Your task to perform on an android device: What's the news in Sri Lanka? Image 0: 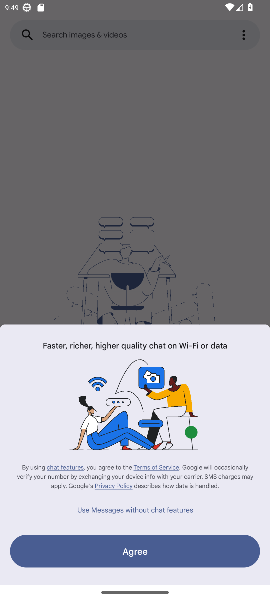
Step 0: click (195, 558)
Your task to perform on an android device: What's the news in Sri Lanka? Image 1: 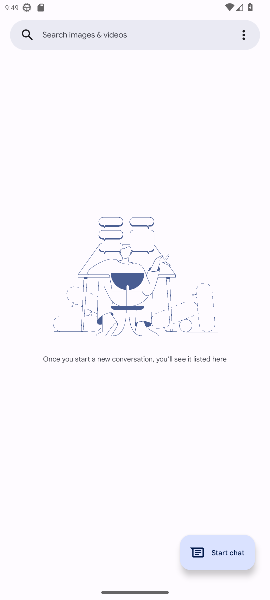
Step 1: press back button
Your task to perform on an android device: What's the news in Sri Lanka? Image 2: 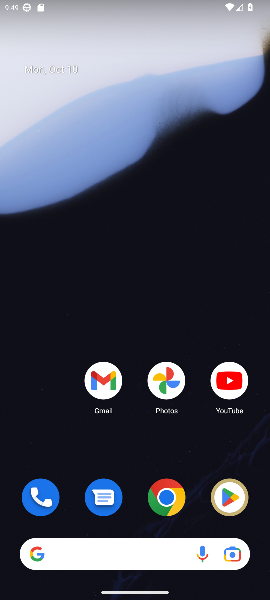
Step 2: drag from (102, 472) to (113, 56)
Your task to perform on an android device: What's the news in Sri Lanka? Image 3: 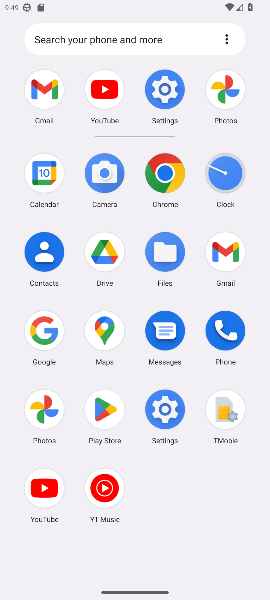
Step 3: click (45, 322)
Your task to perform on an android device: What's the news in Sri Lanka? Image 4: 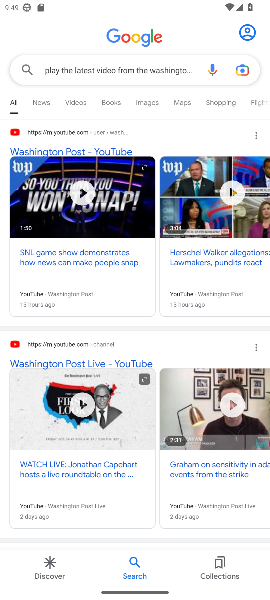
Step 4: click (127, 64)
Your task to perform on an android device: What's the news in Sri Lanka? Image 5: 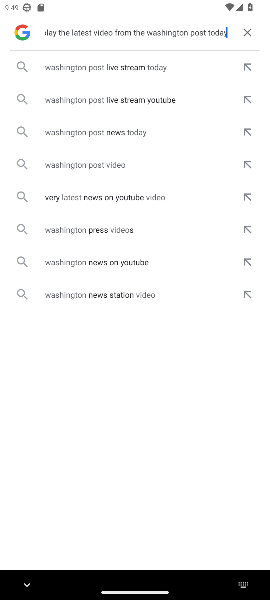
Step 5: click (243, 27)
Your task to perform on an android device: What's the news in Sri Lanka? Image 6: 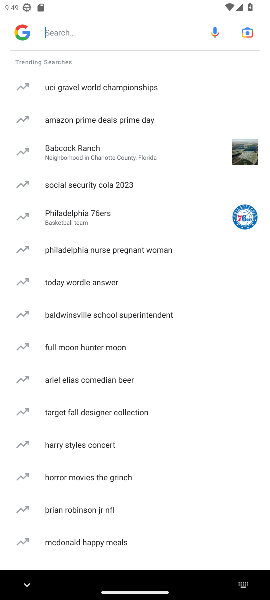
Step 6: click (134, 37)
Your task to perform on an android device: What's the news in Sri Lanka? Image 7: 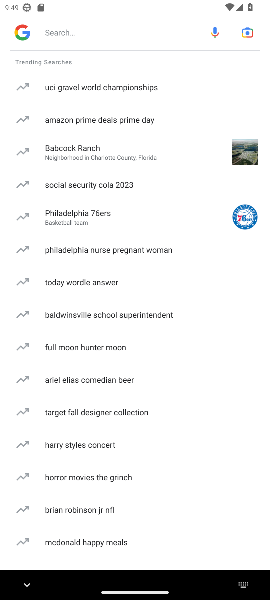
Step 7: type "What's the news in Sri Lanka? "
Your task to perform on an android device: What's the news in Sri Lanka? Image 8: 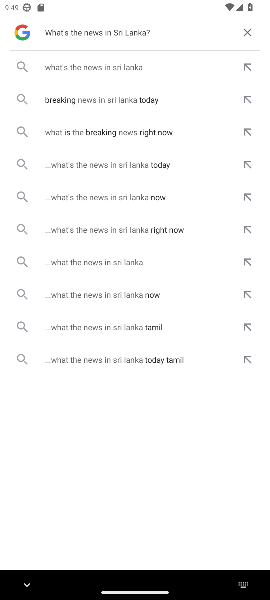
Step 8: click (89, 66)
Your task to perform on an android device: What's the news in Sri Lanka? Image 9: 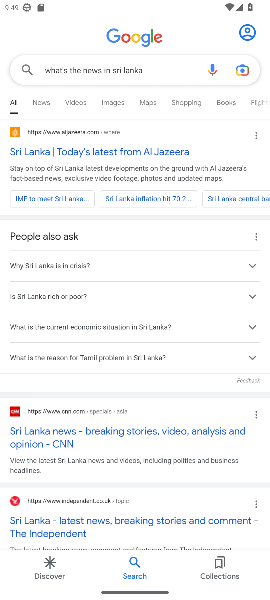
Step 9: click (121, 147)
Your task to perform on an android device: What's the news in Sri Lanka? Image 10: 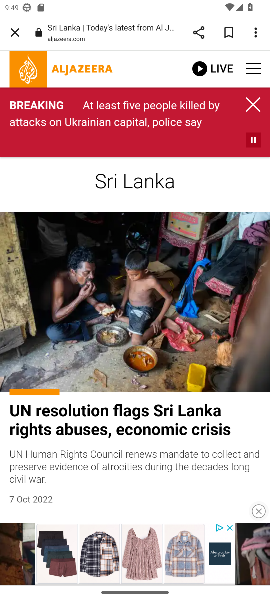
Step 10: task complete